Your task to perform on an android device: Turn on the flashlight Image 0: 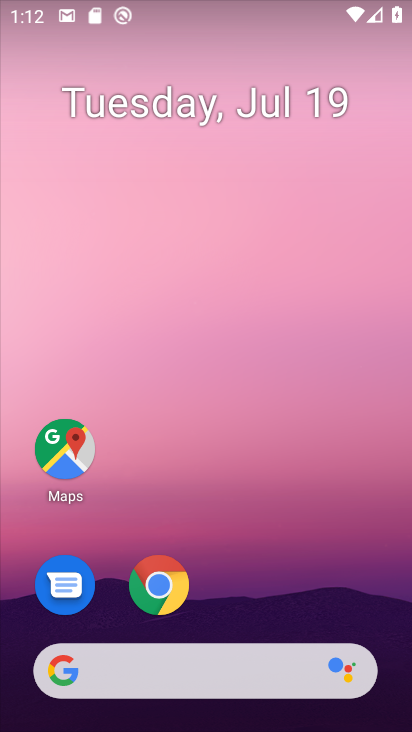
Step 0: drag from (276, 593) to (295, 7)
Your task to perform on an android device: Turn on the flashlight Image 1: 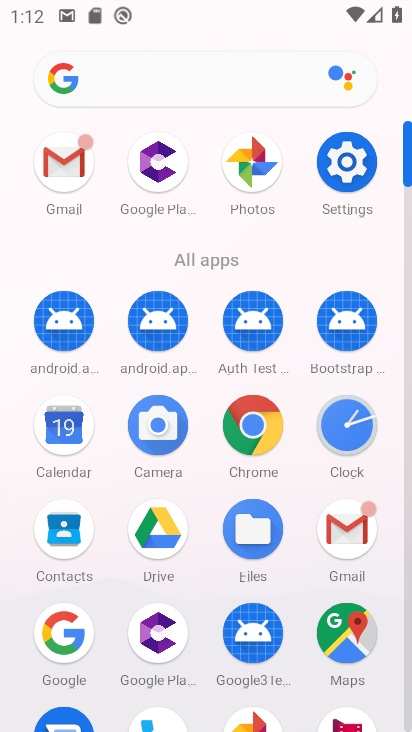
Step 1: click (346, 144)
Your task to perform on an android device: Turn on the flashlight Image 2: 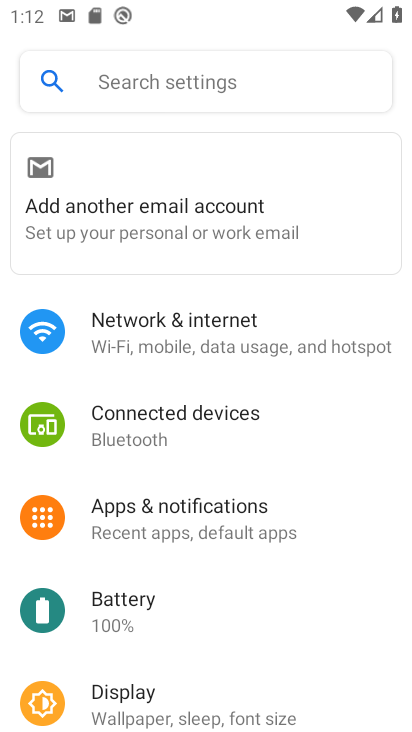
Step 2: click (245, 81)
Your task to perform on an android device: Turn on the flashlight Image 3: 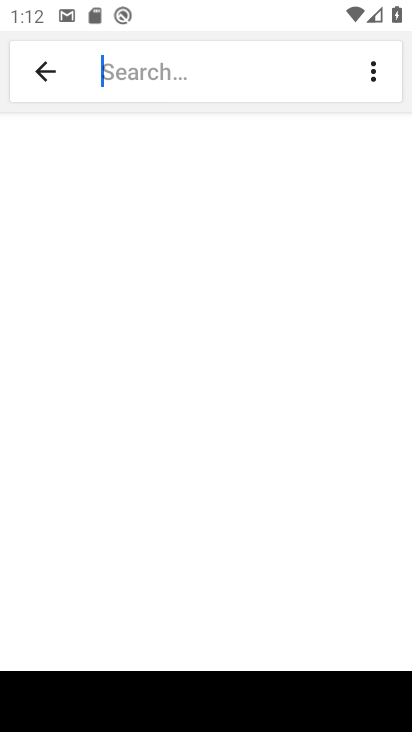
Step 3: type "Flashlight"
Your task to perform on an android device: Turn on the flashlight Image 4: 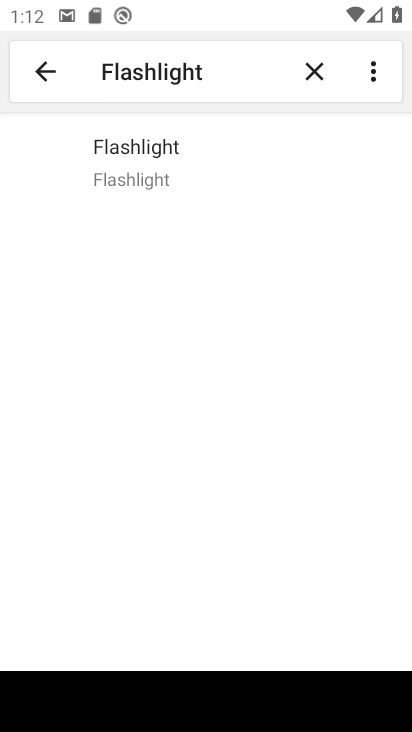
Step 4: click (151, 159)
Your task to perform on an android device: Turn on the flashlight Image 5: 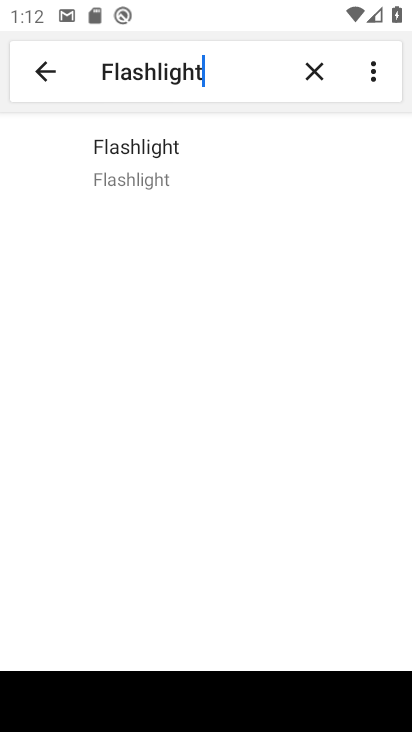
Step 5: click (151, 156)
Your task to perform on an android device: Turn on the flashlight Image 6: 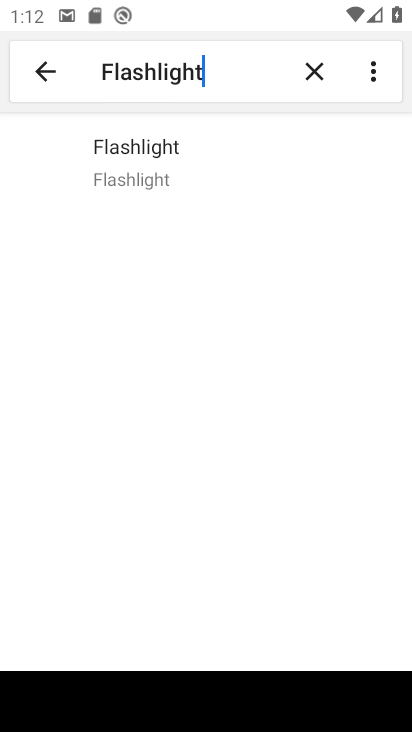
Step 6: task complete